Your task to perform on an android device: Open Amazon Image 0: 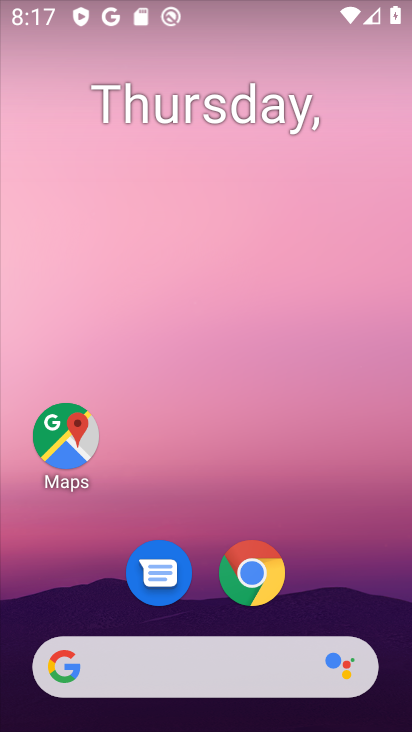
Step 0: drag from (330, 600) to (302, 196)
Your task to perform on an android device: Open Amazon Image 1: 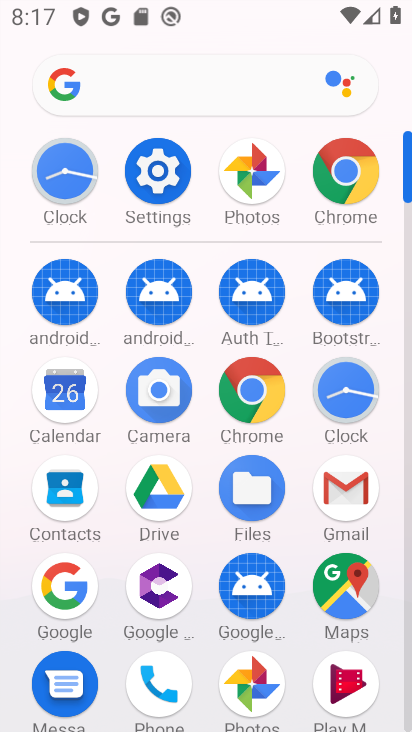
Step 1: click (247, 409)
Your task to perform on an android device: Open Amazon Image 2: 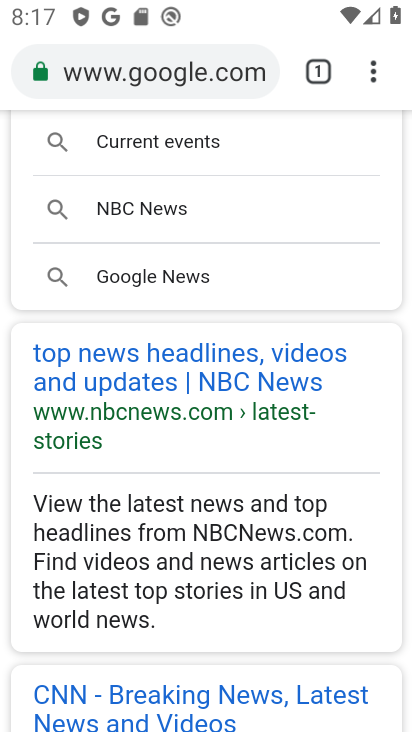
Step 2: click (215, 72)
Your task to perform on an android device: Open Amazon Image 3: 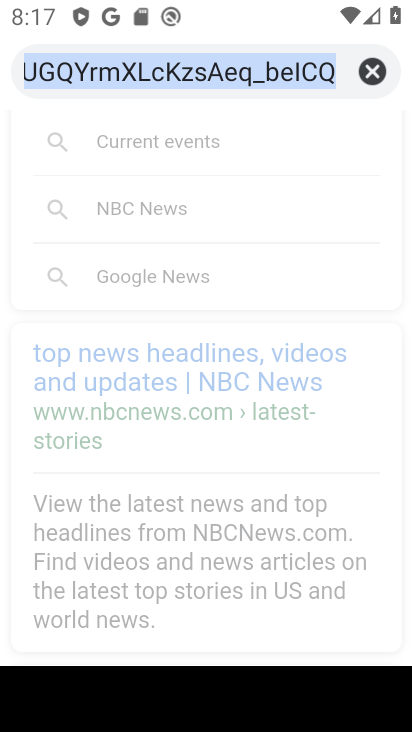
Step 3: click (302, 73)
Your task to perform on an android device: Open Amazon Image 4: 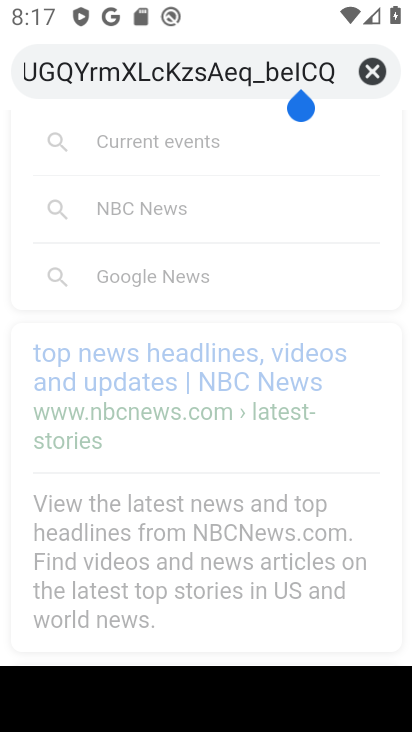
Step 4: click (372, 83)
Your task to perform on an android device: Open Amazon Image 5: 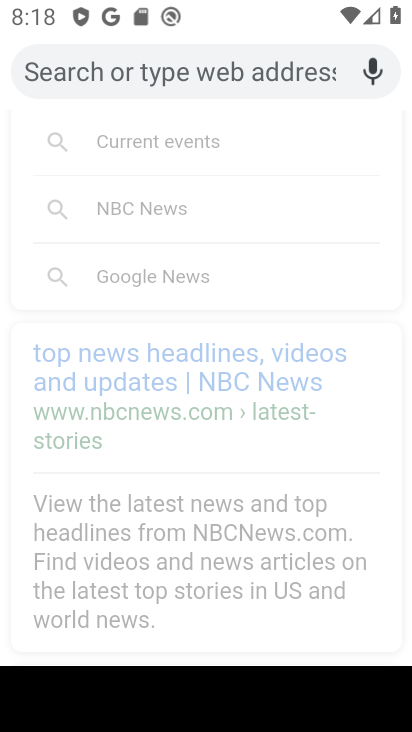
Step 5: type "amazon"
Your task to perform on an android device: Open Amazon Image 6: 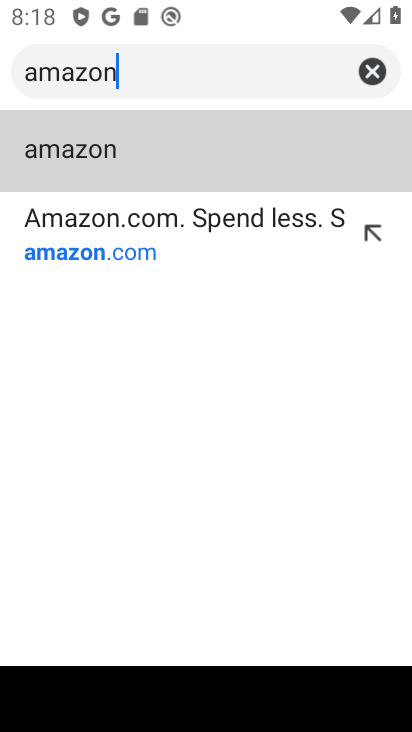
Step 6: click (150, 218)
Your task to perform on an android device: Open Amazon Image 7: 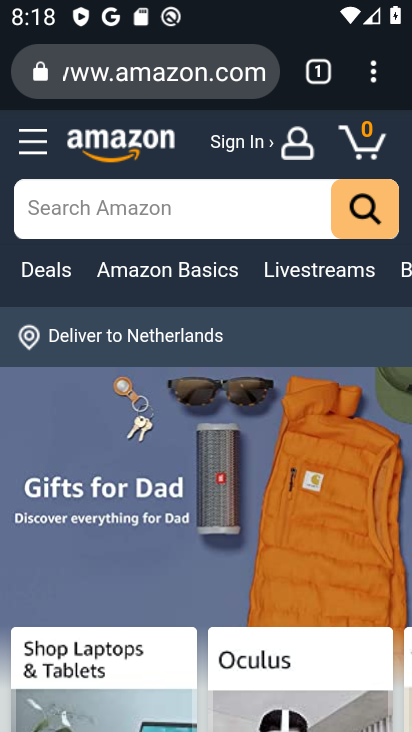
Step 7: task complete